Your task to perform on an android device: Show the shopping cart on costco. Search for "macbook" on costco, select the first entry, and add it to the cart. Image 0: 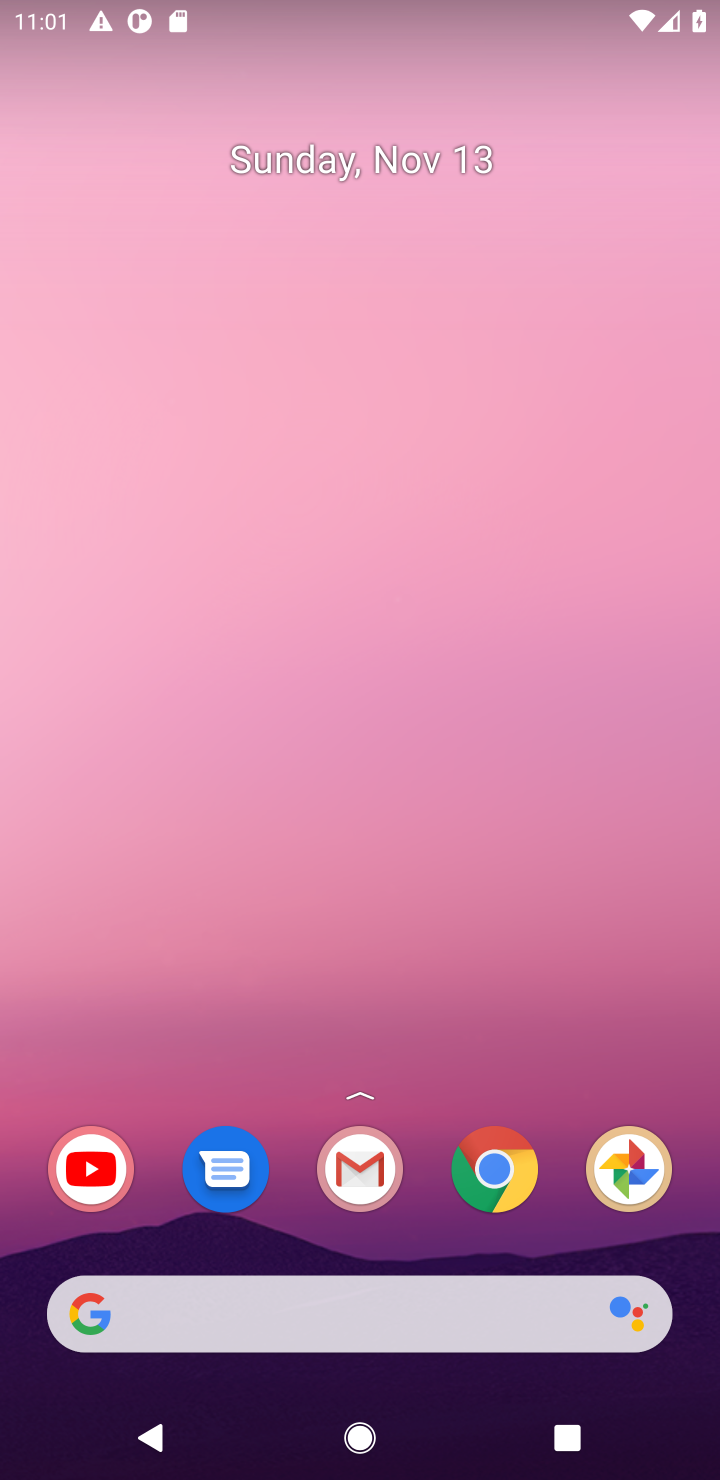
Step 0: drag from (428, 1235) to (521, 51)
Your task to perform on an android device: Show the shopping cart on costco. Search for "macbook" on costco, select the first entry, and add it to the cart. Image 1: 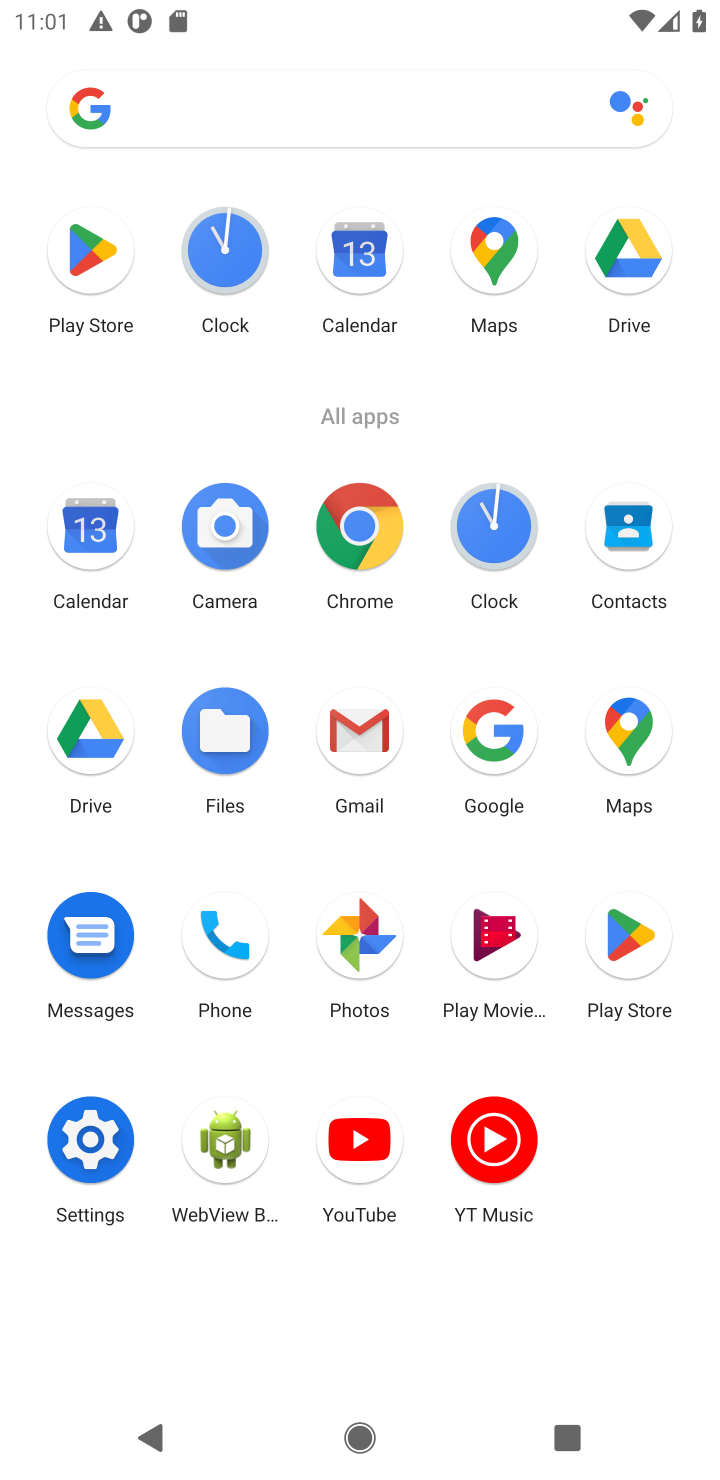
Step 1: click (355, 518)
Your task to perform on an android device: Show the shopping cart on costco. Search for "macbook" on costco, select the first entry, and add it to the cart. Image 2: 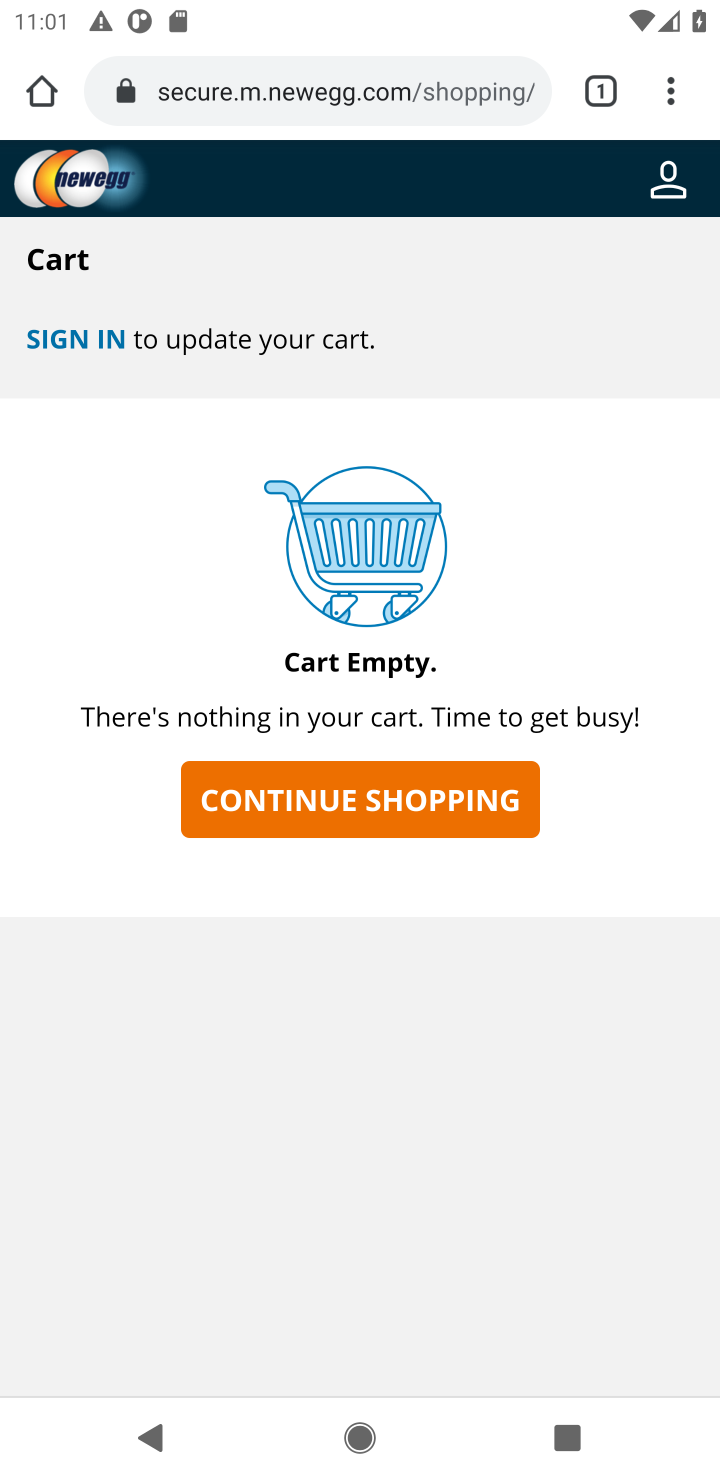
Step 2: click (400, 87)
Your task to perform on an android device: Show the shopping cart on costco. Search for "macbook" on costco, select the first entry, and add it to the cart. Image 3: 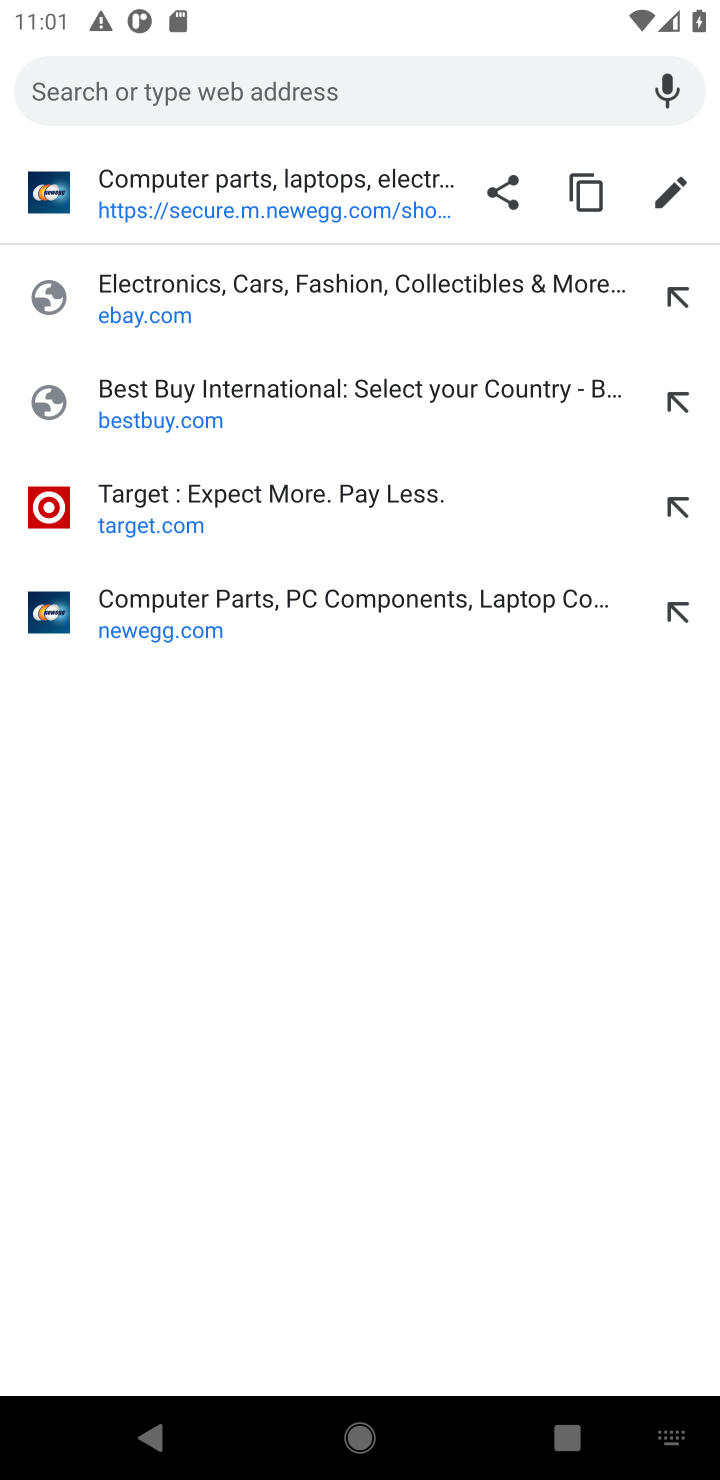
Step 3: type "costco.com"
Your task to perform on an android device: Show the shopping cart on costco. Search for "macbook" on costco, select the first entry, and add it to the cart. Image 4: 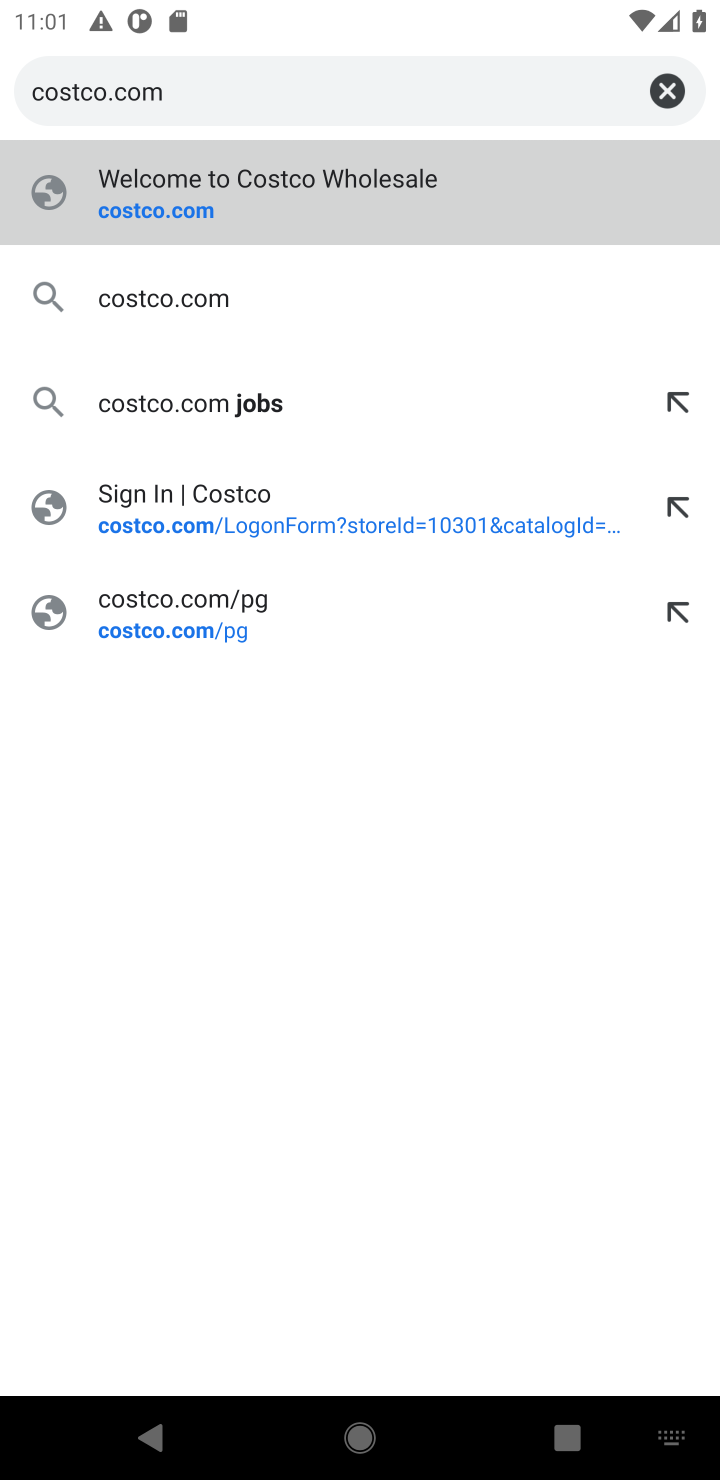
Step 4: press enter
Your task to perform on an android device: Show the shopping cart on costco. Search for "macbook" on costco, select the first entry, and add it to the cart. Image 5: 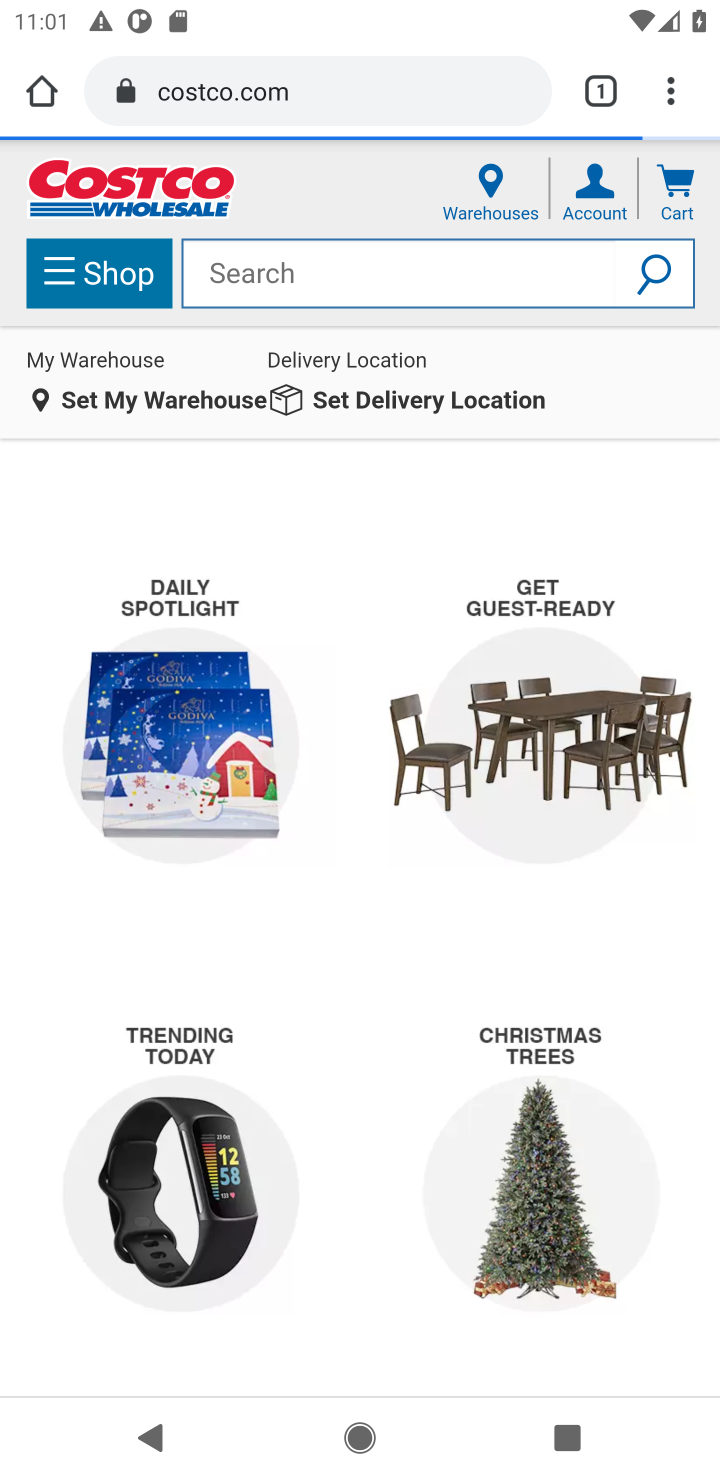
Step 5: click (684, 200)
Your task to perform on an android device: Show the shopping cart on costco. Search for "macbook" on costco, select the first entry, and add it to the cart. Image 6: 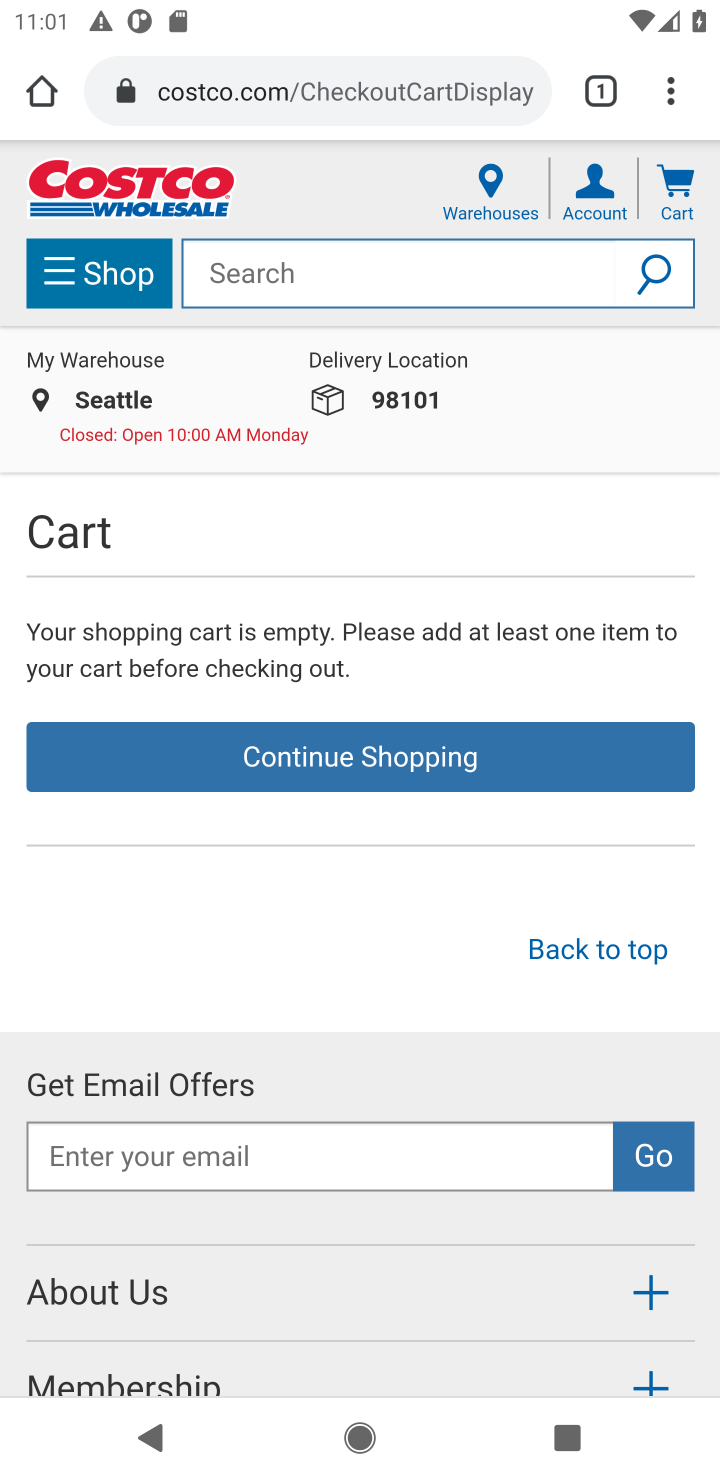
Step 6: click (412, 281)
Your task to perform on an android device: Show the shopping cart on costco. Search for "macbook" on costco, select the first entry, and add it to the cart. Image 7: 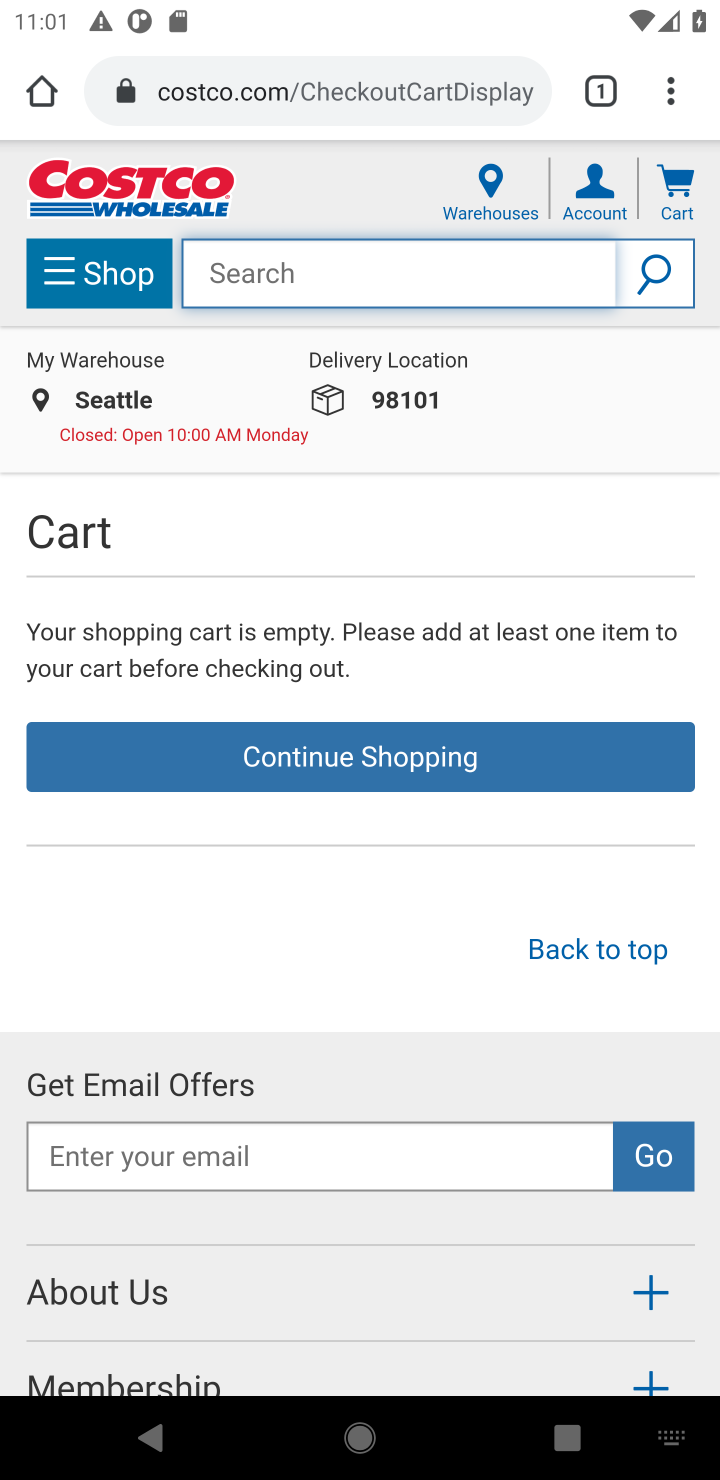
Step 7: type "macbook"
Your task to perform on an android device: Show the shopping cart on costco. Search for "macbook" on costco, select the first entry, and add it to the cart. Image 8: 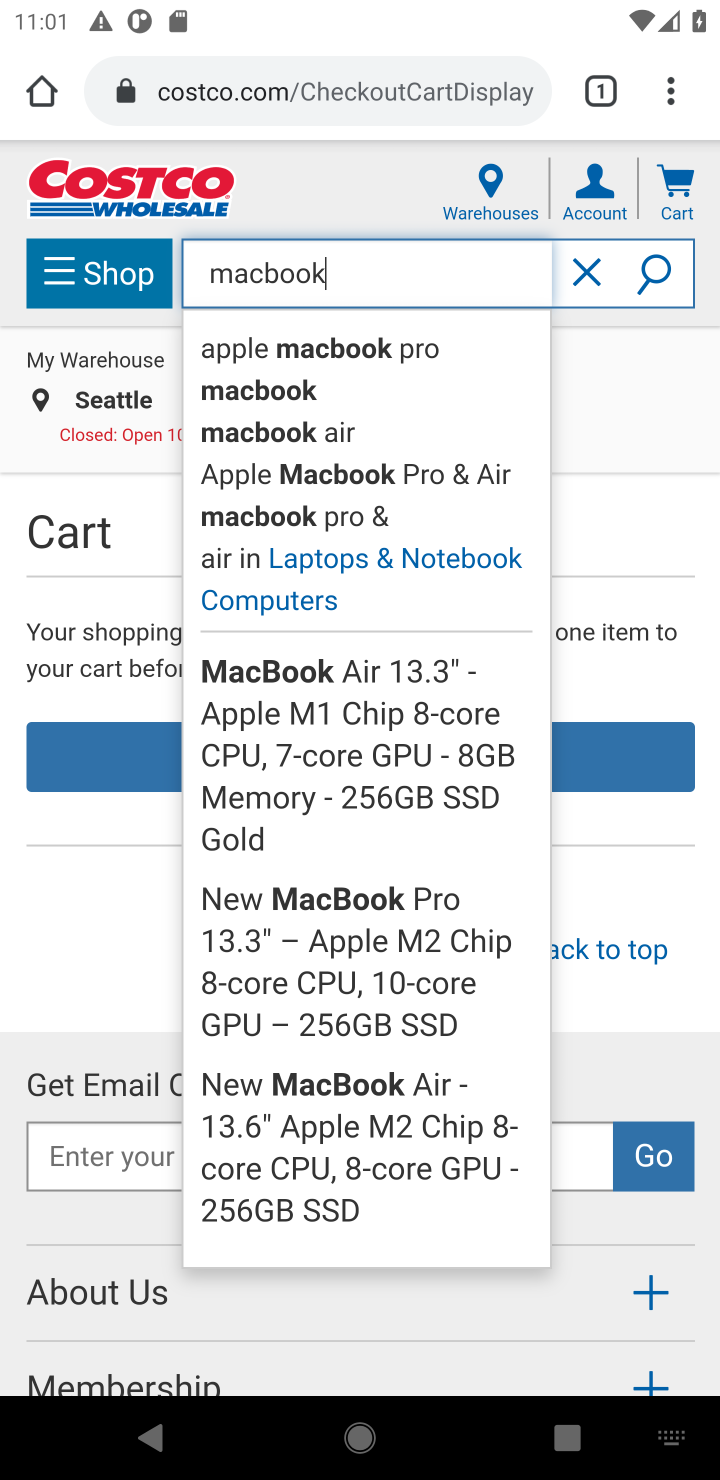
Step 8: press enter
Your task to perform on an android device: Show the shopping cart on costco. Search for "macbook" on costco, select the first entry, and add it to the cart. Image 9: 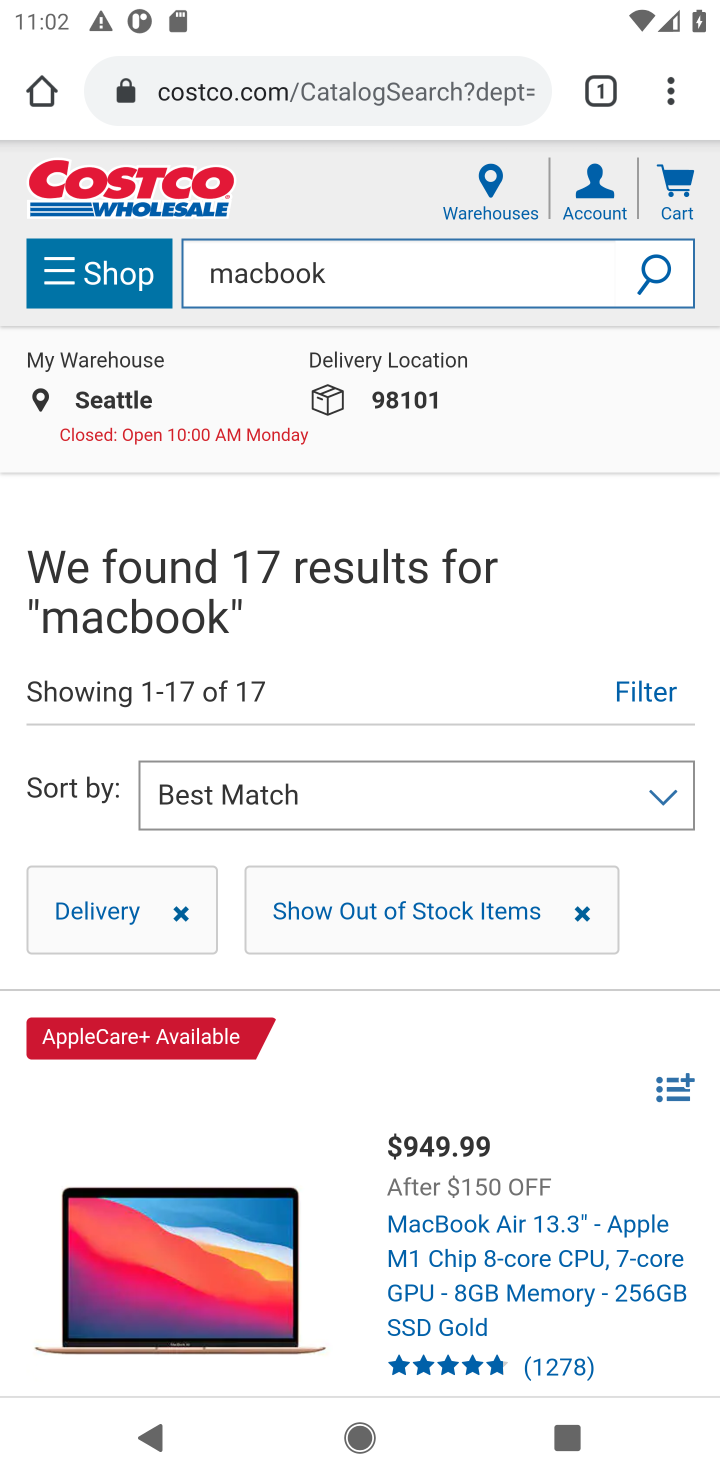
Step 9: drag from (468, 1279) to (426, 666)
Your task to perform on an android device: Show the shopping cart on costco. Search for "macbook" on costco, select the first entry, and add it to the cart. Image 10: 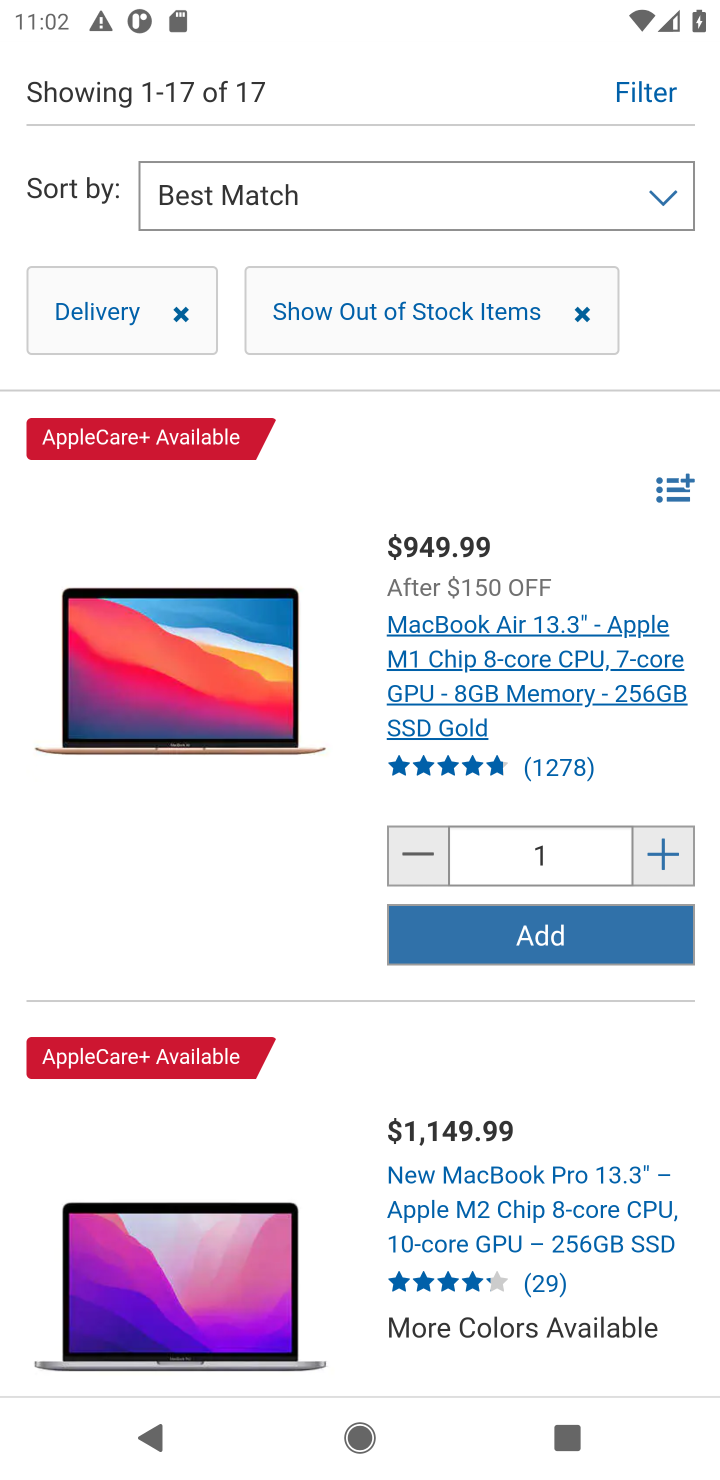
Step 10: click (534, 672)
Your task to perform on an android device: Show the shopping cart on costco. Search for "macbook" on costco, select the first entry, and add it to the cart. Image 11: 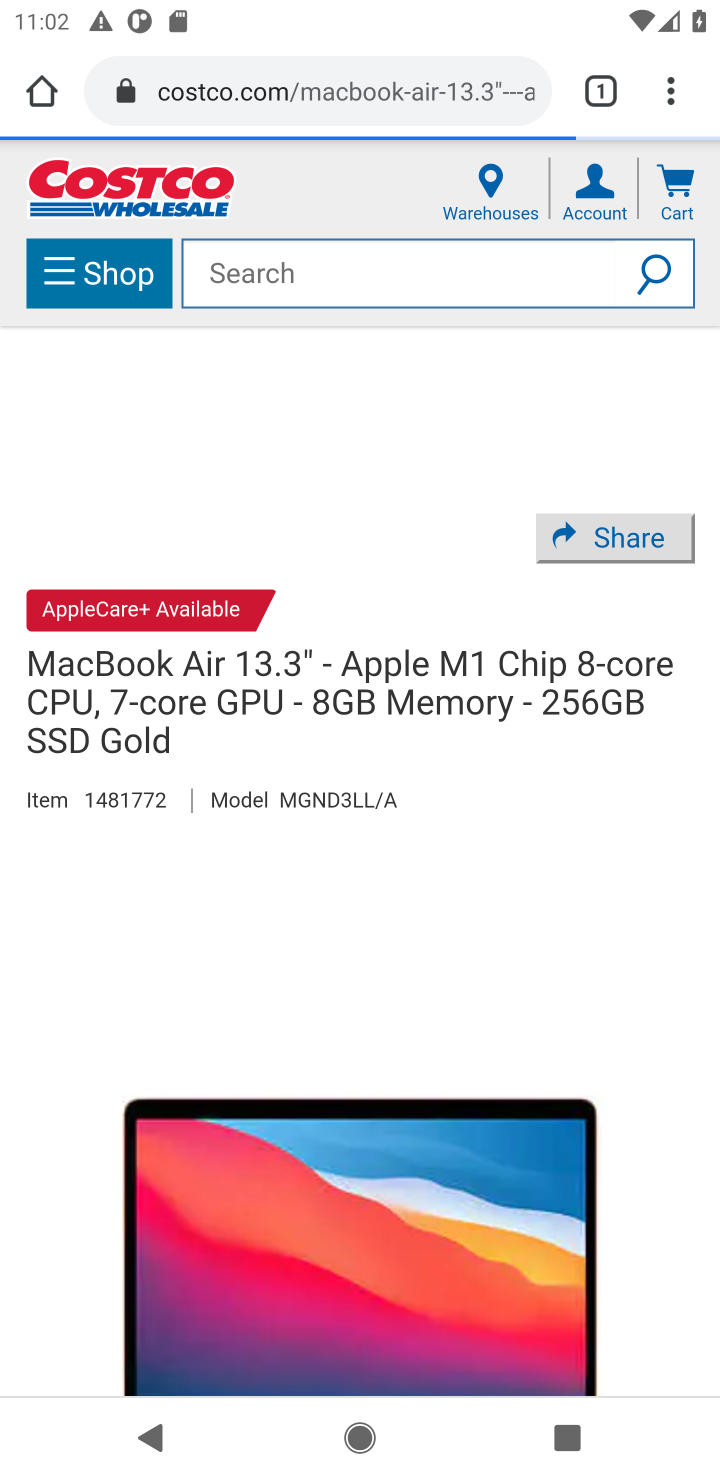
Step 11: drag from (499, 1199) to (494, 435)
Your task to perform on an android device: Show the shopping cart on costco. Search for "macbook" on costco, select the first entry, and add it to the cart. Image 12: 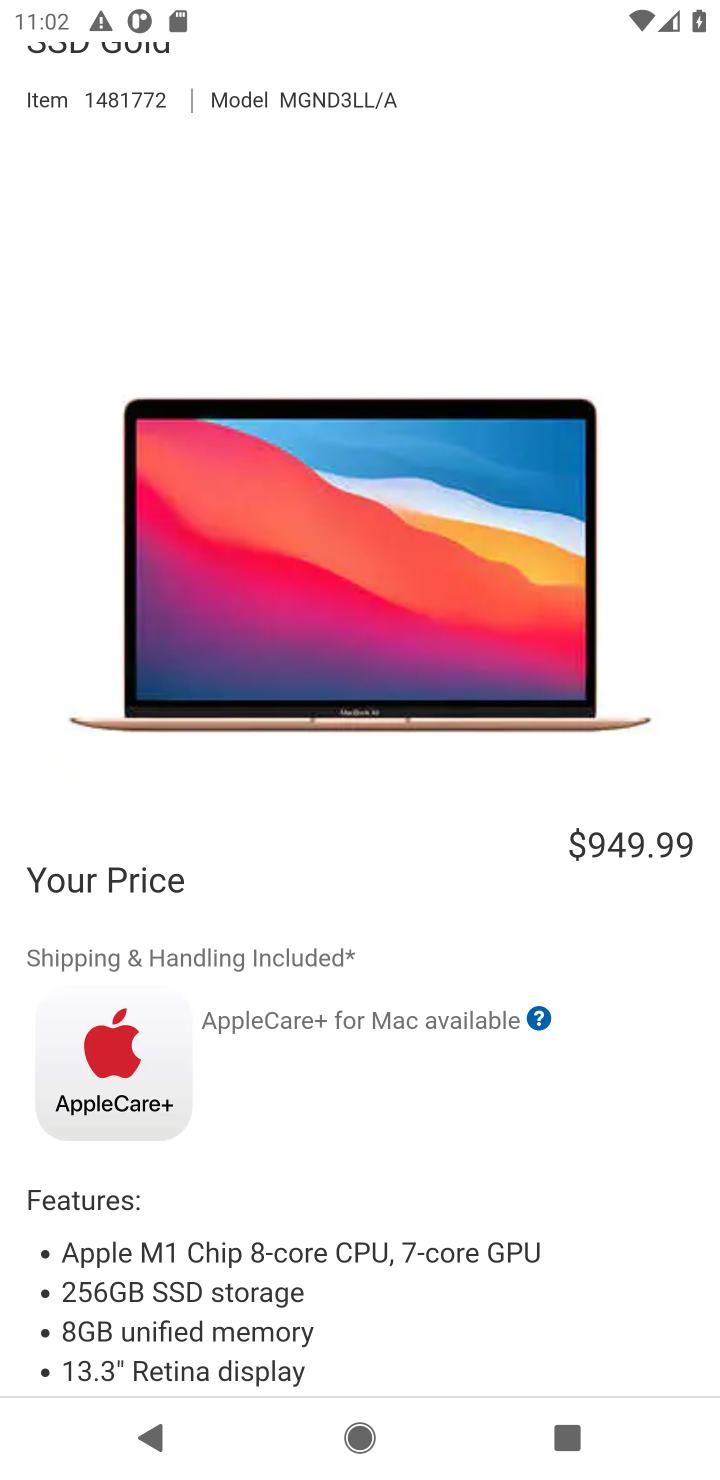
Step 12: drag from (366, 884) to (382, 189)
Your task to perform on an android device: Show the shopping cart on costco. Search for "macbook" on costco, select the first entry, and add it to the cart. Image 13: 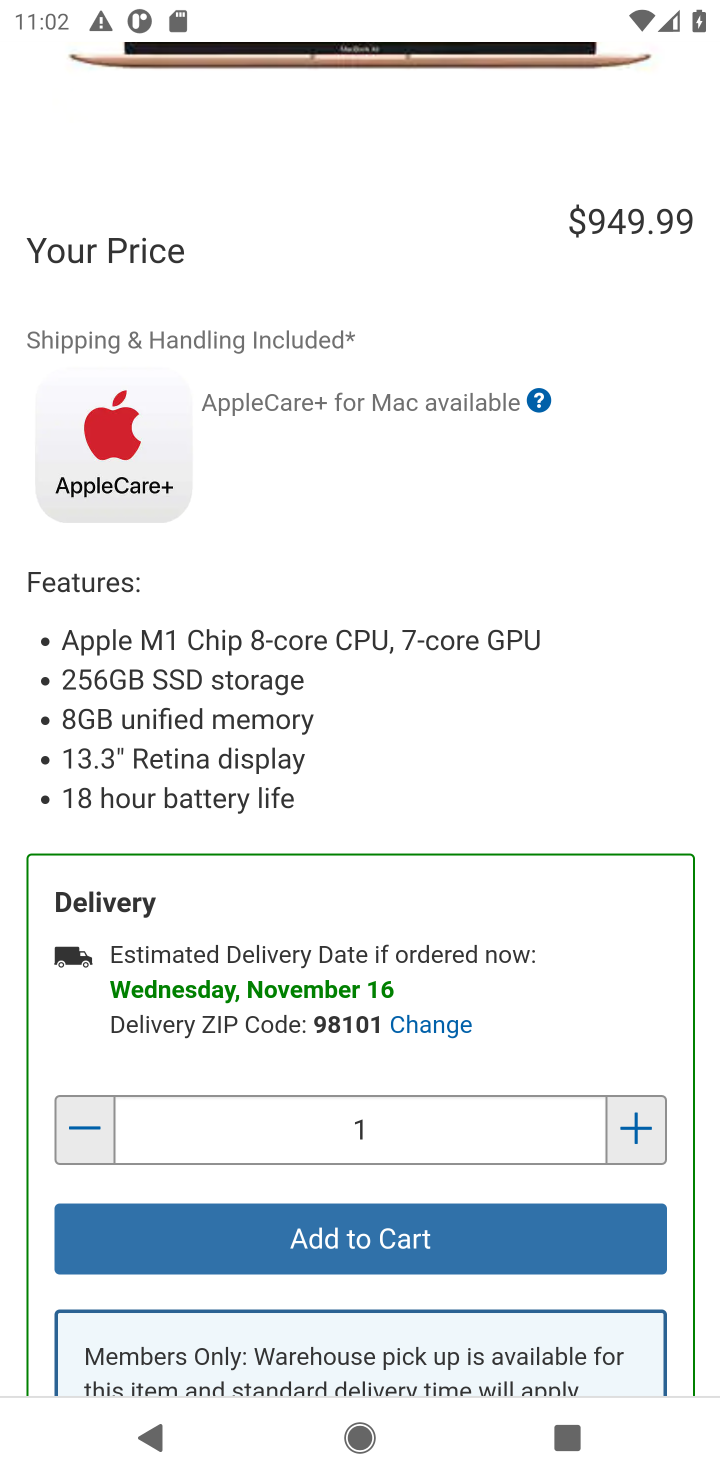
Step 13: click (417, 1266)
Your task to perform on an android device: Show the shopping cart on costco. Search for "macbook" on costco, select the first entry, and add it to the cart. Image 14: 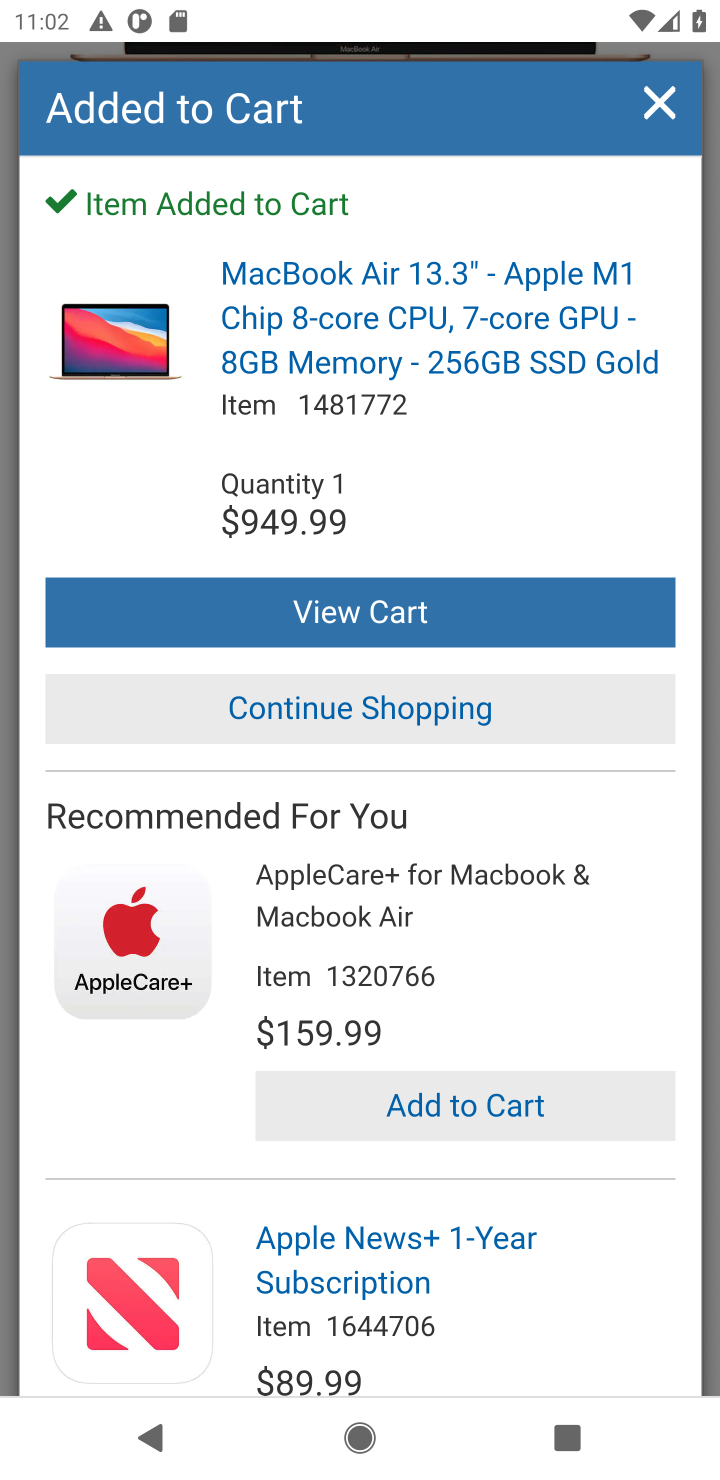
Step 14: task complete